Your task to perform on an android device: turn on wifi Image 0: 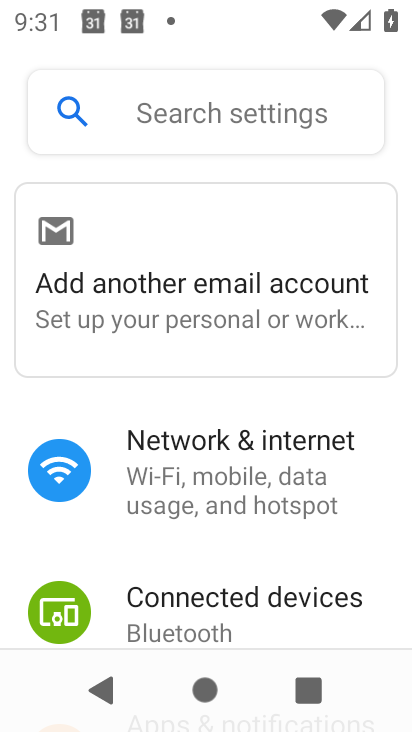
Step 0: press home button
Your task to perform on an android device: turn on wifi Image 1: 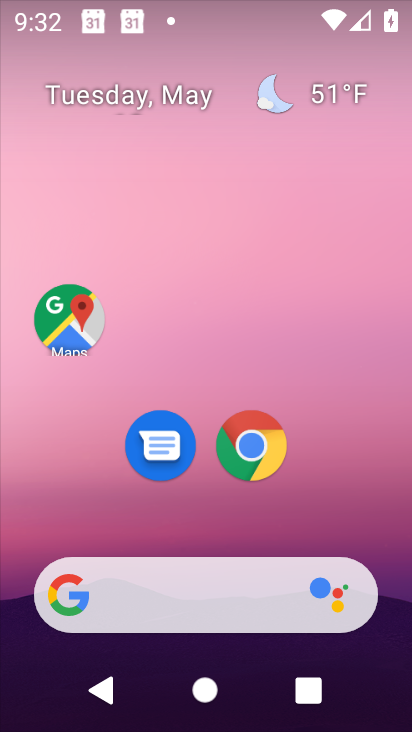
Step 1: drag from (187, 578) to (66, 181)
Your task to perform on an android device: turn on wifi Image 2: 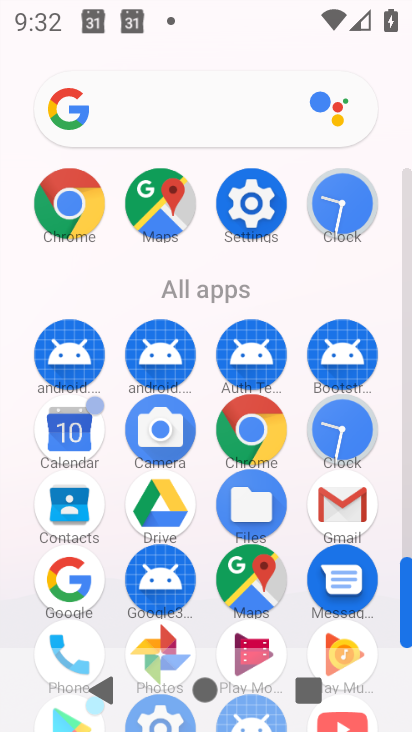
Step 2: click (256, 226)
Your task to perform on an android device: turn on wifi Image 3: 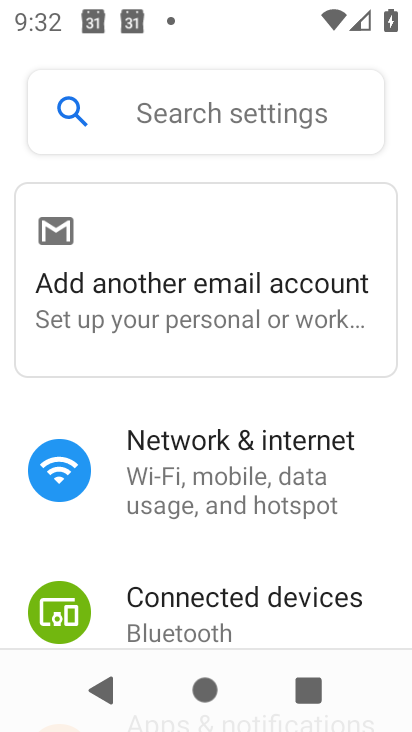
Step 3: click (182, 461)
Your task to perform on an android device: turn on wifi Image 4: 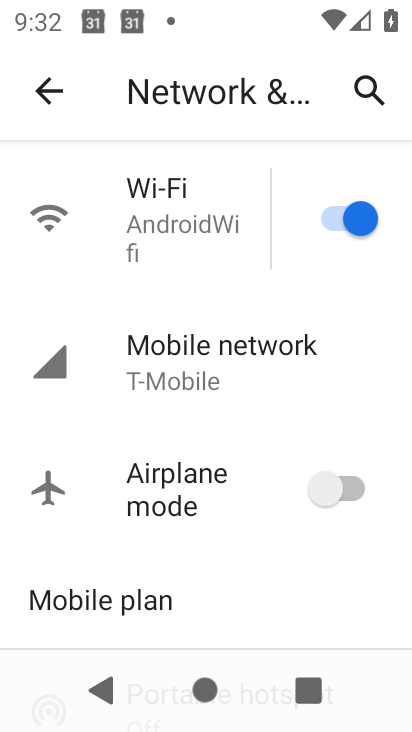
Step 4: task complete